Your task to perform on an android device: Search for "logitech g pro" on amazon.com, select the first entry, and add it to the cart. Image 0: 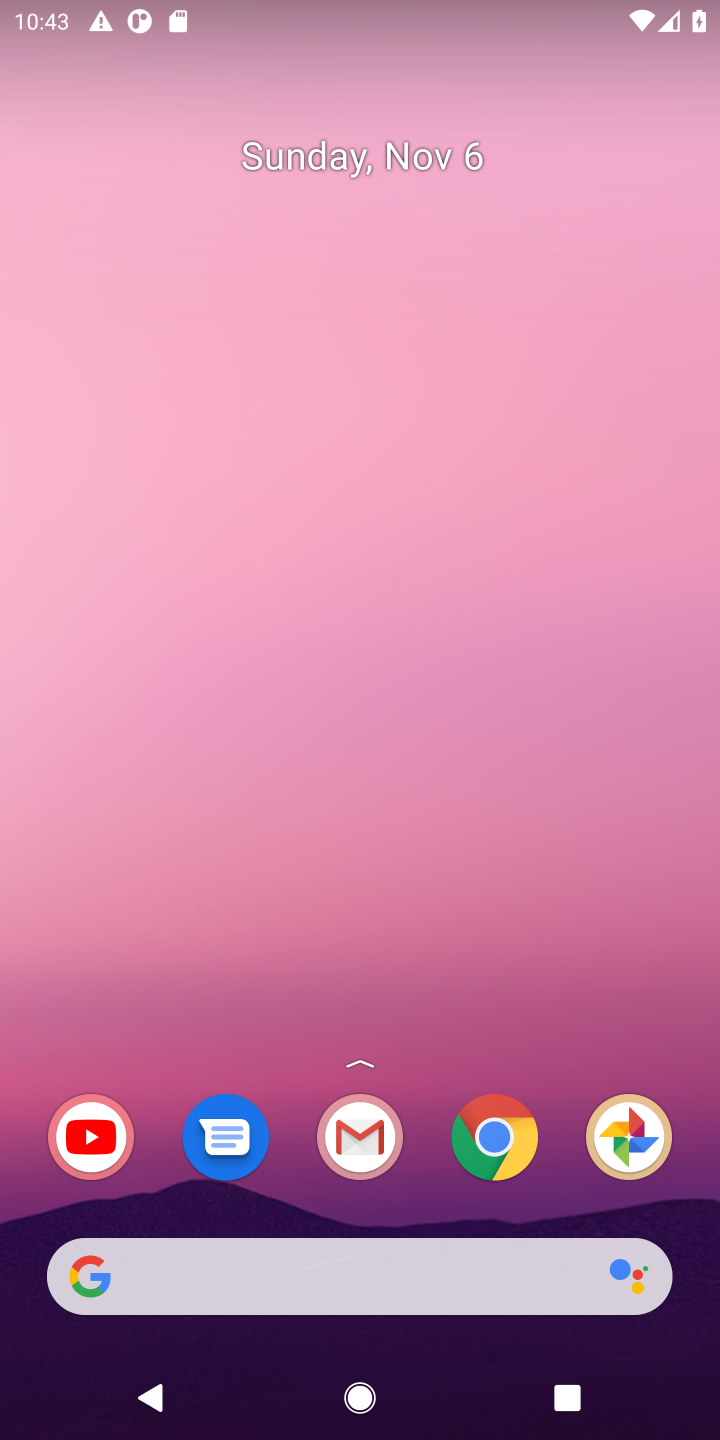
Step 0: drag from (442, 1199) to (584, 101)
Your task to perform on an android device: Search for "logitech g pro" on amazon.com, select the first entry, and add it to the cart. Image 1: 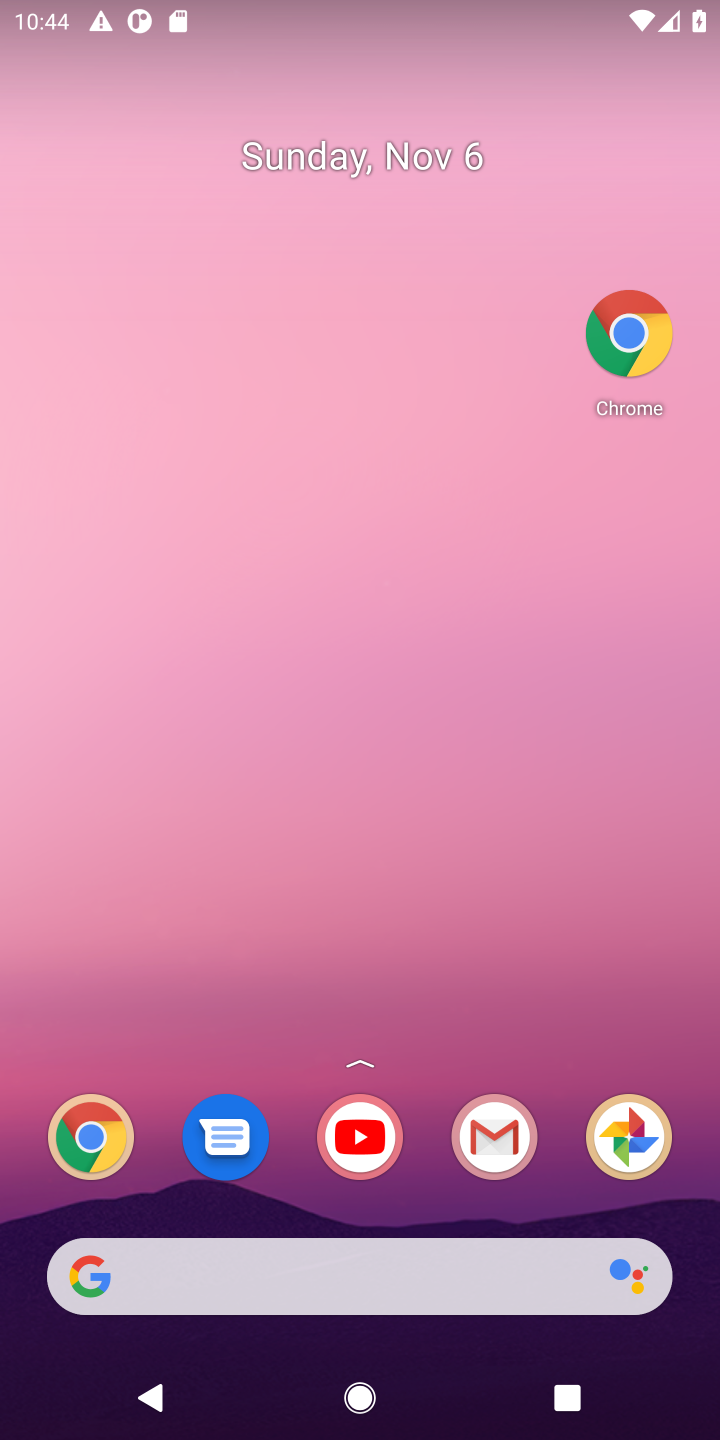
Step 1: click (620, 340)
Your task to perform on an android device: Search for "logitech g pro" on amazon.com, select the first entry, and add it to the cart. Image 2: 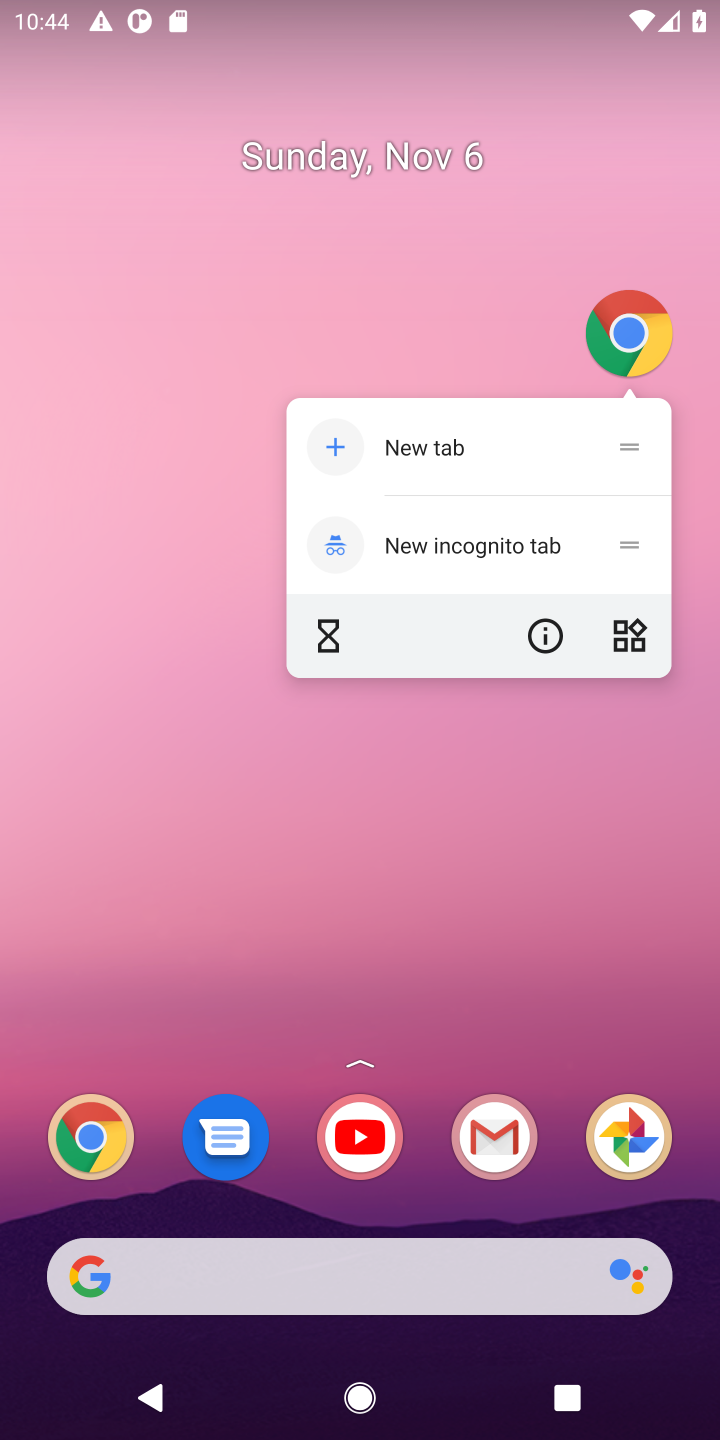
Step 2: click (620, 335)
Your task to perform on an android device: Search for "logitech g pro" on amazon.com, select the first entry, and add it to the cart. Image 3: 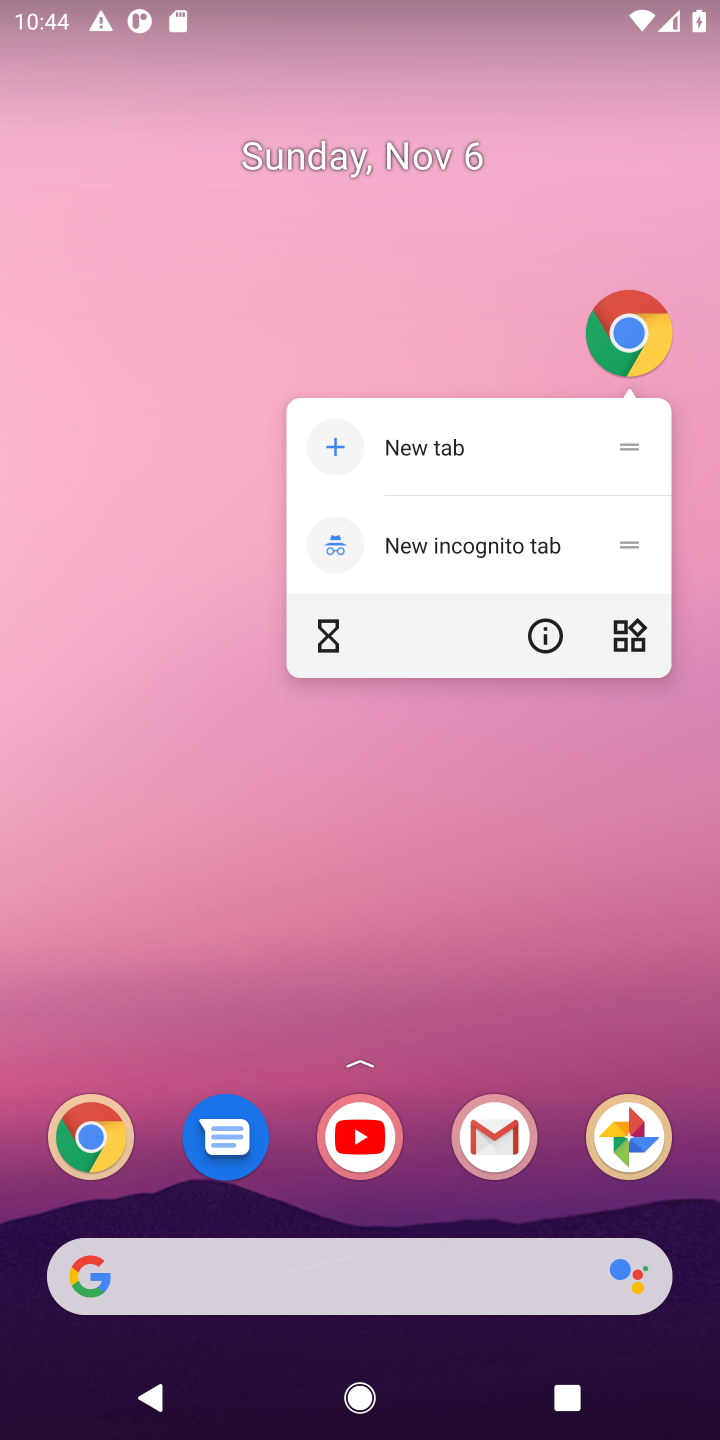
Step 3: drag from (288, 1202) to (266, 48)
Your task to perform on an android device: Search for "logitech g pro" on amazon.com, select the first entry, and add it to the cart. Image 4: 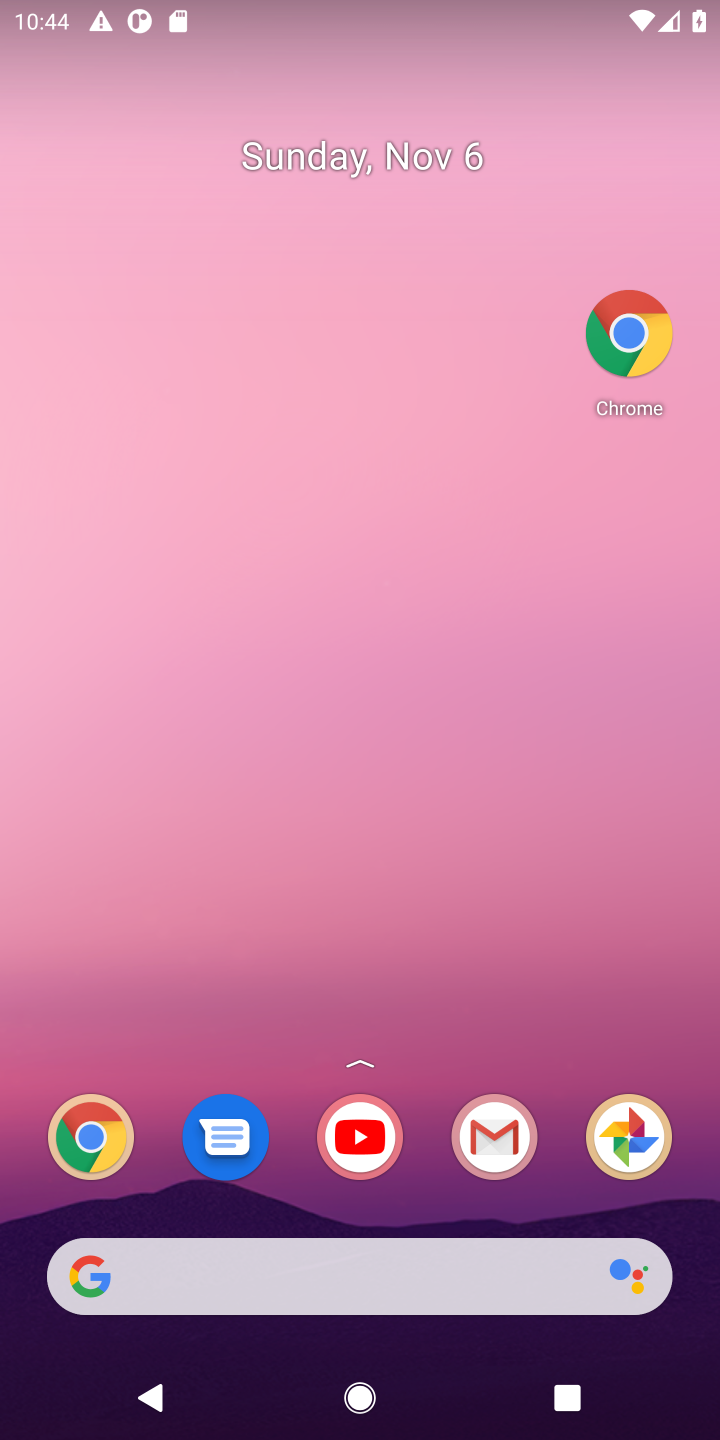
Step 4: drag from (438, 1228) to (488, 76)
Your task to perform on an android device: Search for "logitech g pro" on amazon.com, select the first entry, and add it to the cart. Image 5: 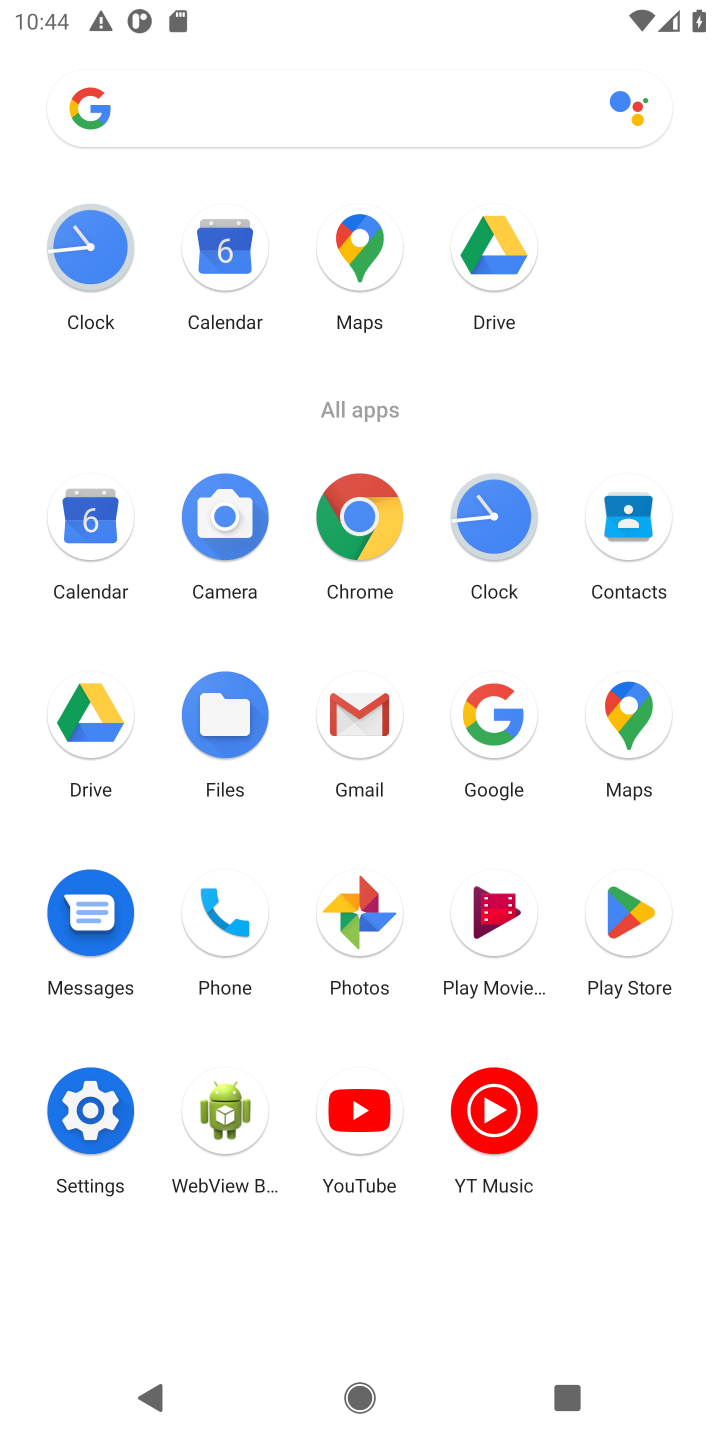
Step 5: click (363, 512)
Your task to perform on an android device: Search for "logitech g pro" on amazon.com, select the first entry, and add it to the cart. Image 6: 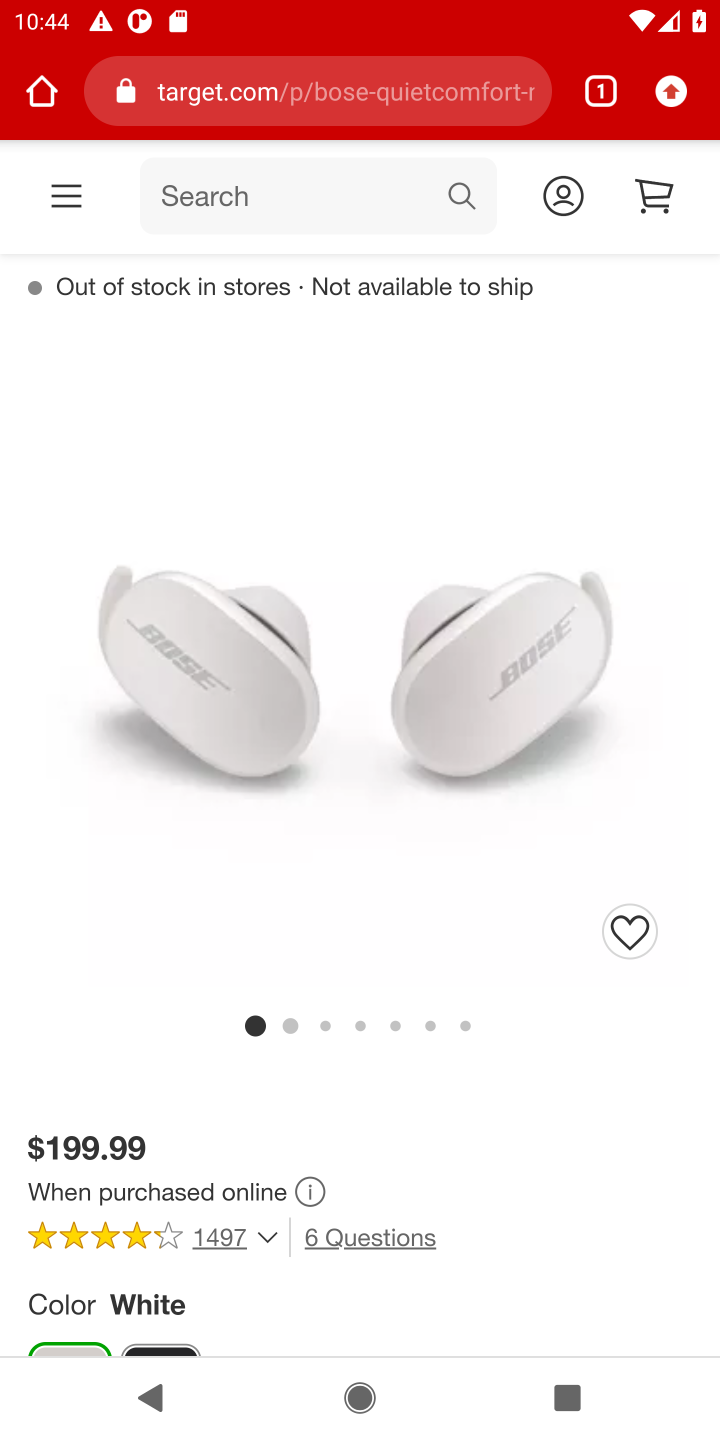
Step 6: click (392, 94)
Your task to perform on an android device: Search for "logitech g pro" on amazon.com, select the first entry, and add it to the cart. Image 7: 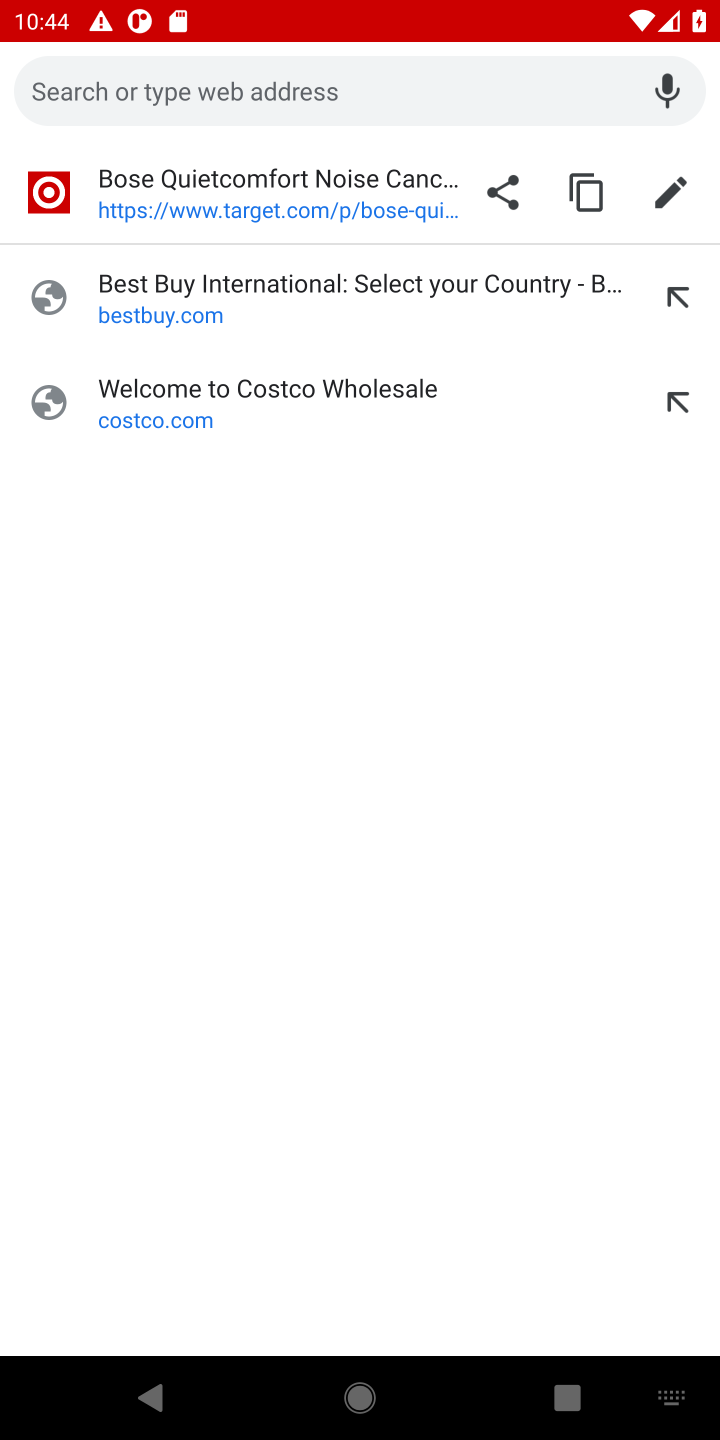
Step 7: type "amazon.com"
Your task to perform on an android device: Search for "logitech g pro" on amazon.com, select the first entry, and add it to the cart. Image 8: 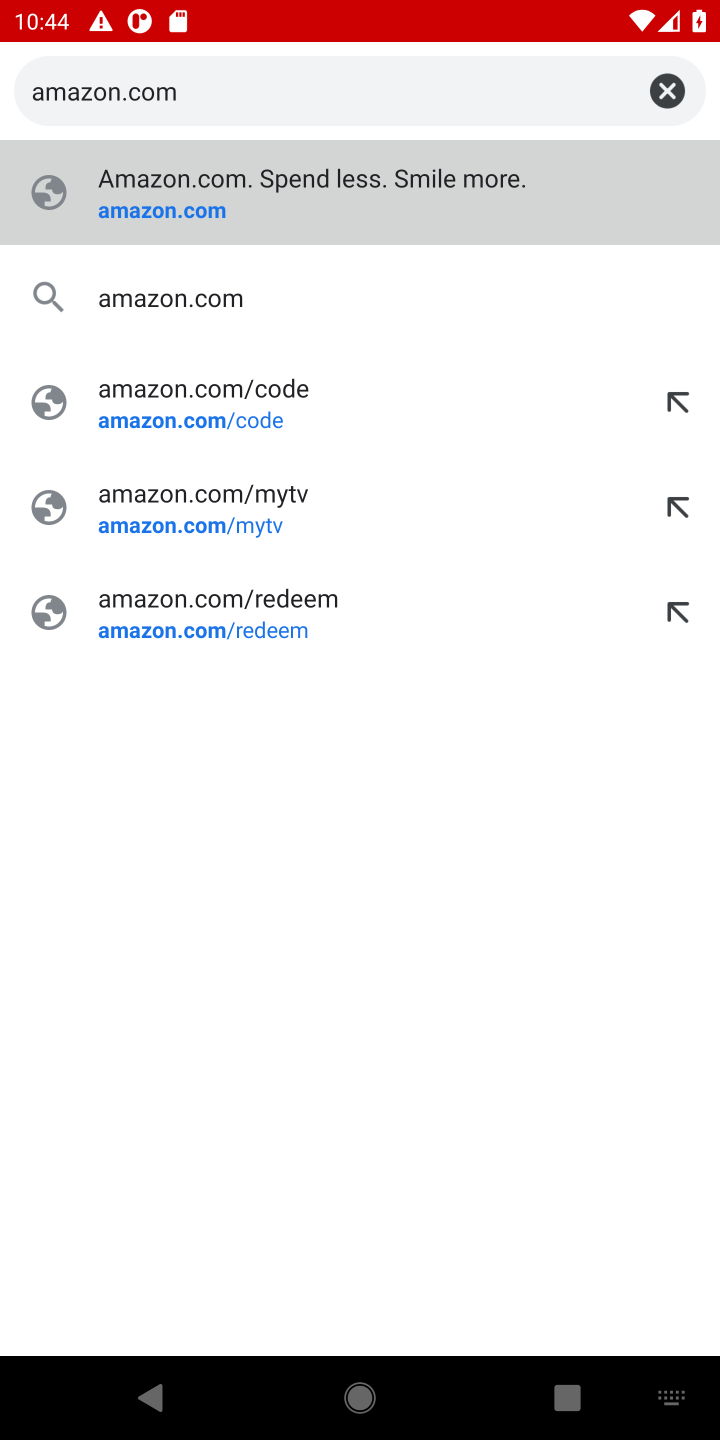
Step 8: press enter
Your task to perform on an android device: Search for "logitech g pro" on amazon.com, select the first entry, and add it to the cart. Image 9: 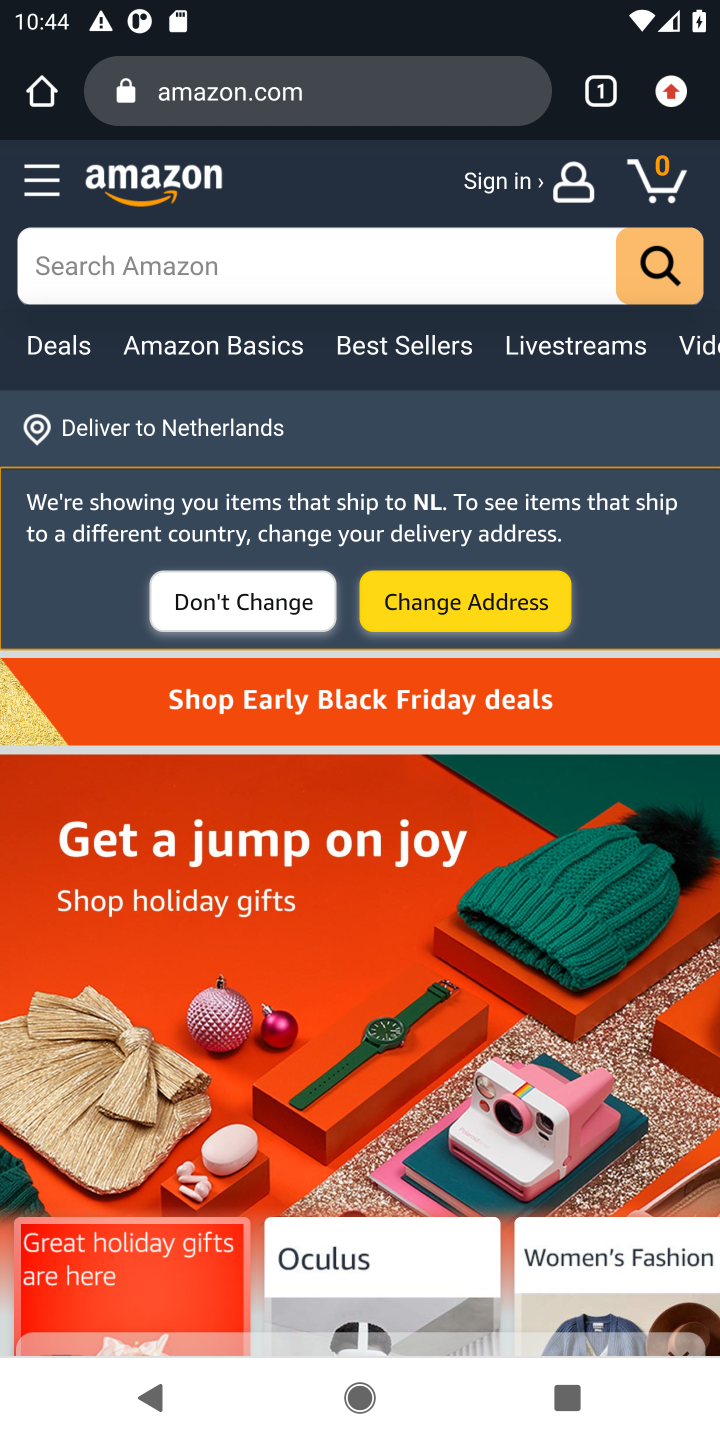
Step 9: click (531, 263)
Your task to perform on an android device: Search for "logitech g pro" on amazon.com, select the first entry, and add it to the cart. Image 10: 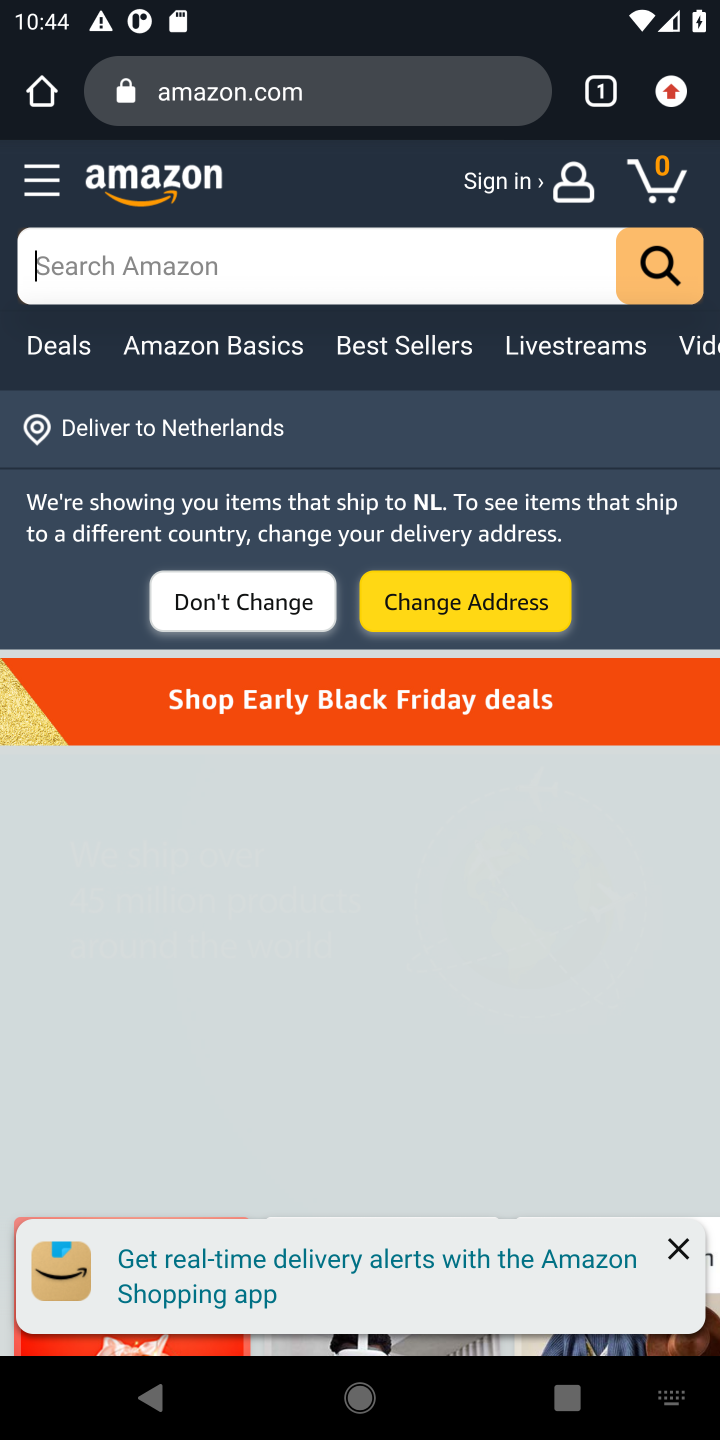
Step 10: click (305, 256)
Your task to perform on an android device: Search for "logitech g pro" on amazon.com, select the first entry, and add it to the cart. Image 11: 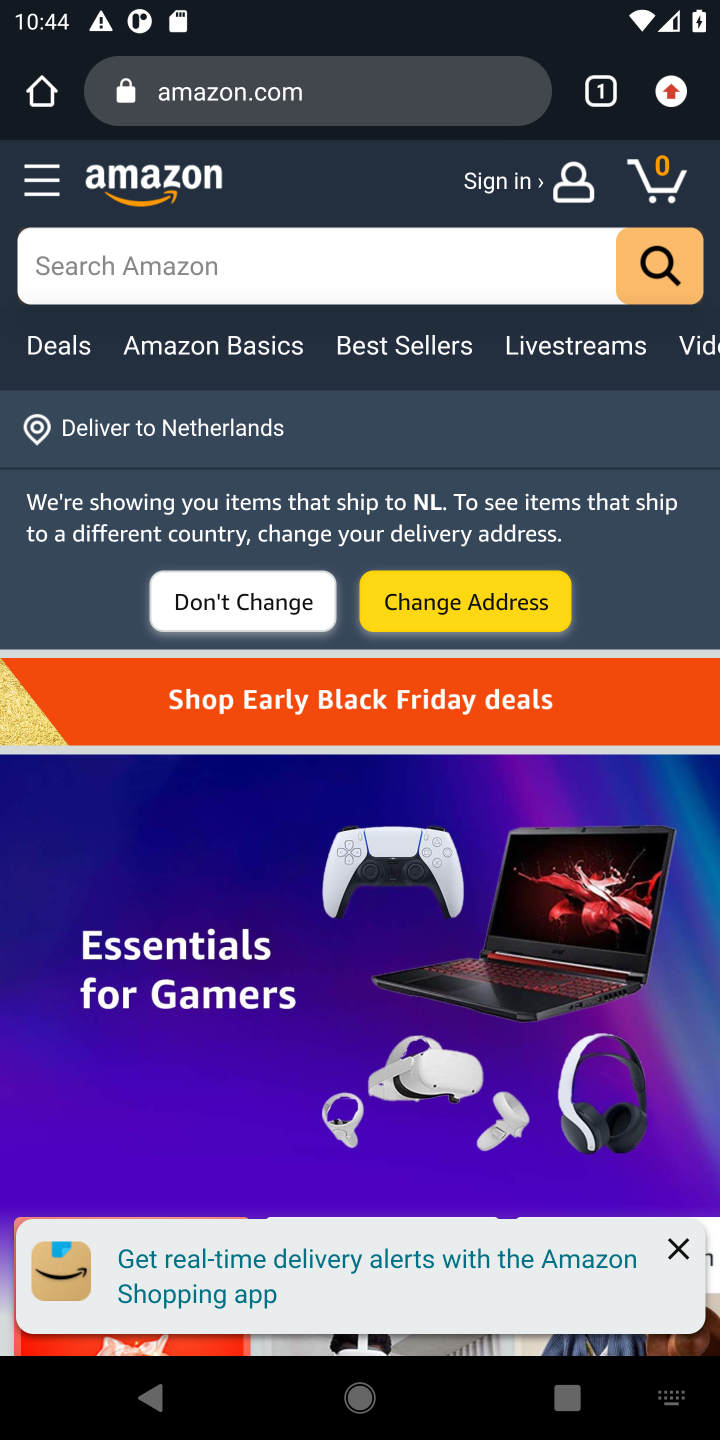
Step 11: type "logitech g pro"
Your task to perform on an android device: Search for "logitech g pro" on amazon.com, select the first entry, and add it to the cart. Image 12: 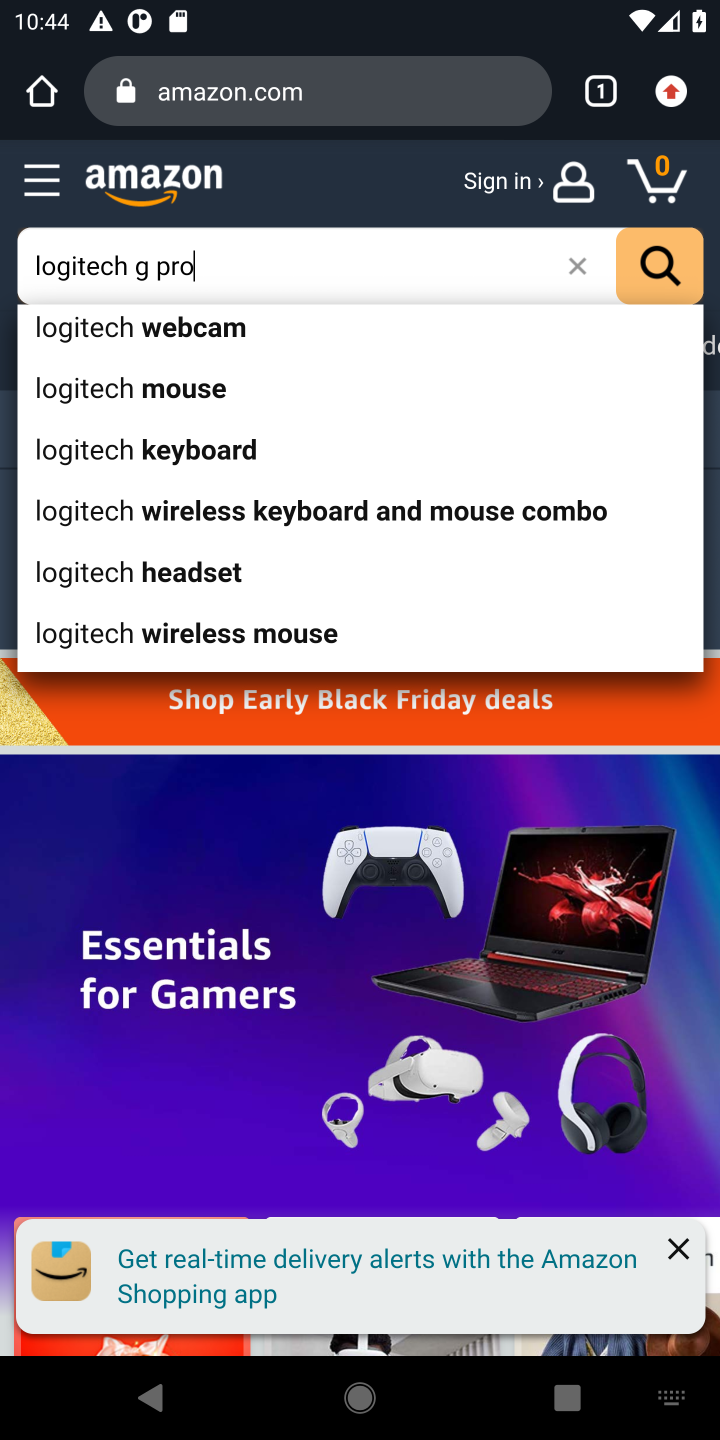
Step 12: press enter
Your task to perform on an android device: Search for "logitech g pro" on amazon.com, select the first entry, and add it to the cart. Image 13: 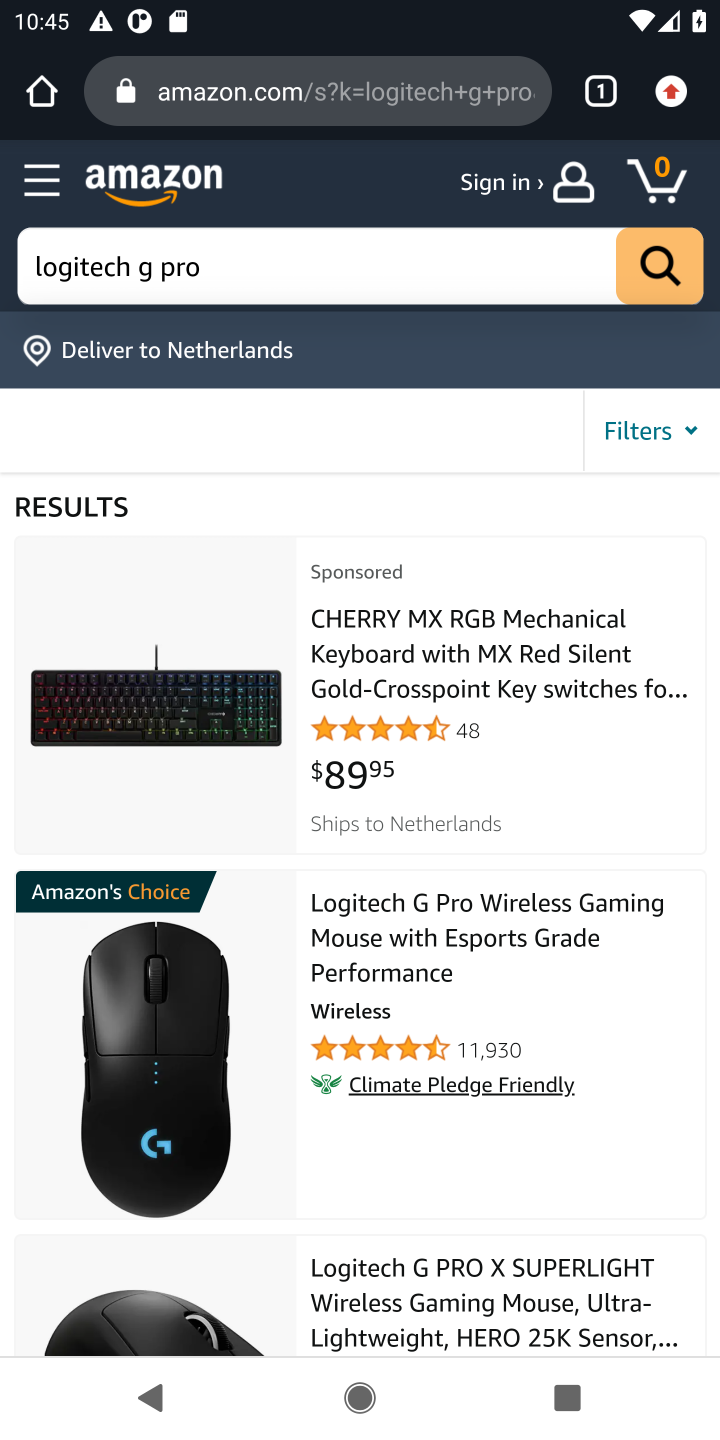
Step 13: click (340, 949)
Your task to perform on an android device: Search for "logitech g pro" on amazon.com, select the first entry, and add it to the cart. Image 14: 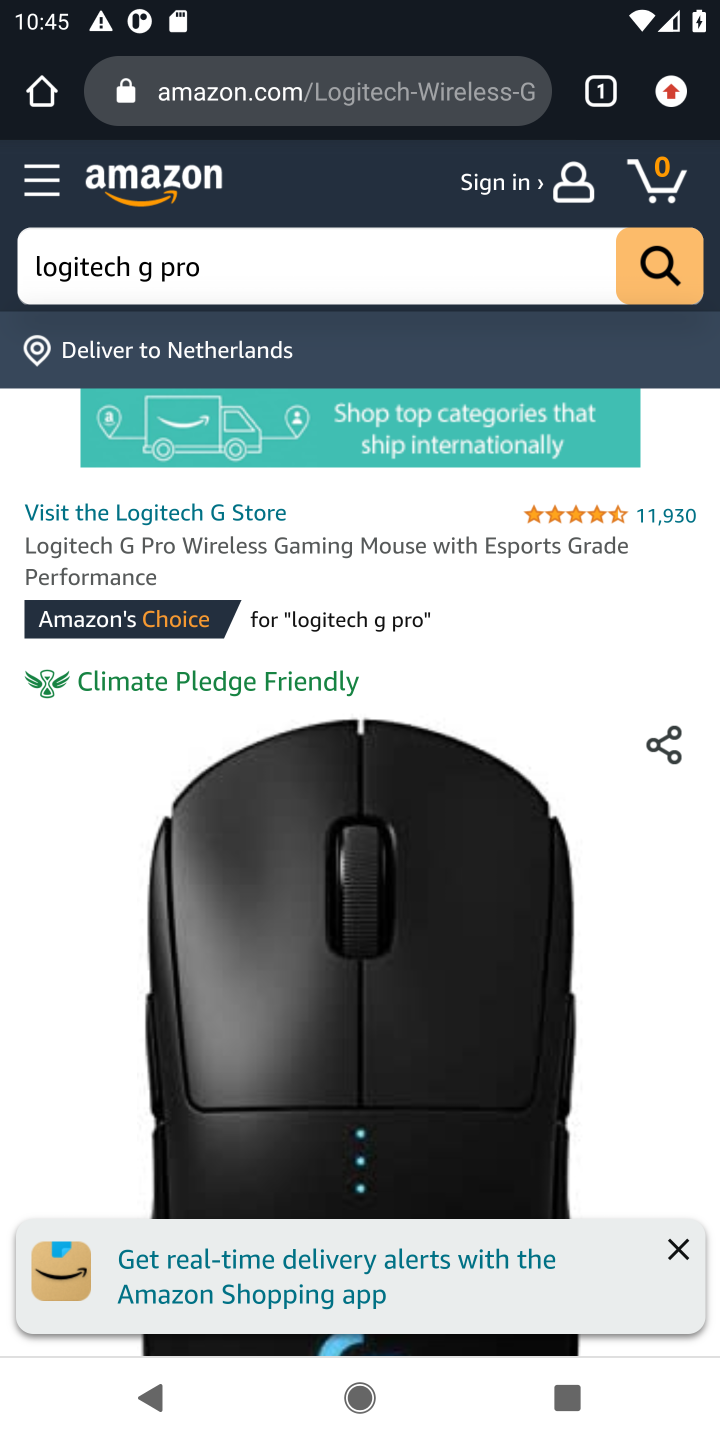
Step 14: task complete